Your task to perform on an android device: Open Android settings Image 0: 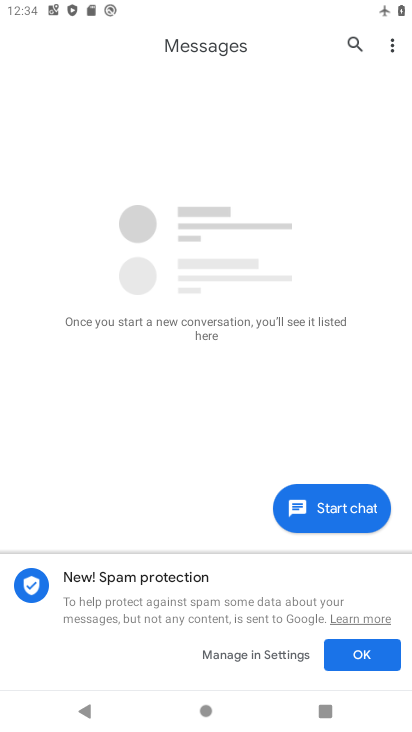
Step 0: press home button
Your task to perform on an android device: Open Android settings Image 1: 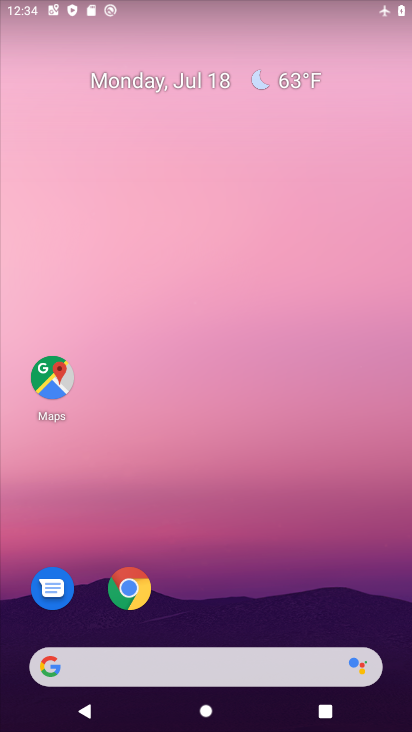
Step 1: drag from (236, 725) to (215, 67)
Your task to perform on an android device: Open Android settings Image 2: 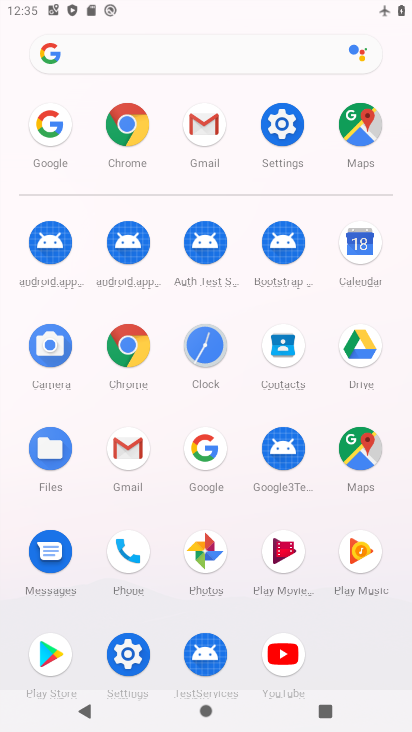
Step 2: click (276, 128)
Your task to perform on an android device: Open Android settings Image 3: 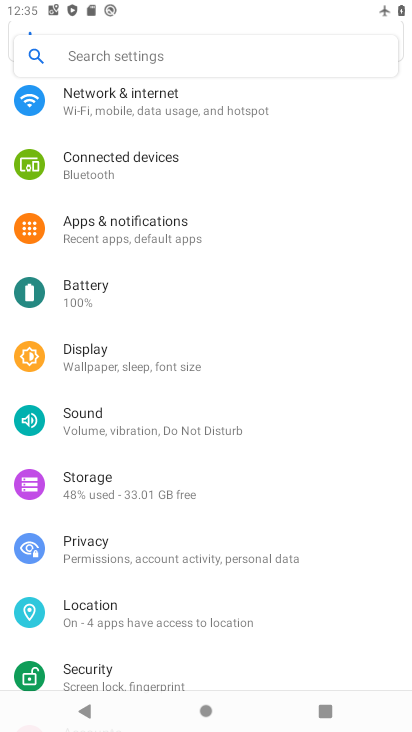
Step 3: task complete